Your task to perform on an android device: What's the price of the LG TV? Image 0: 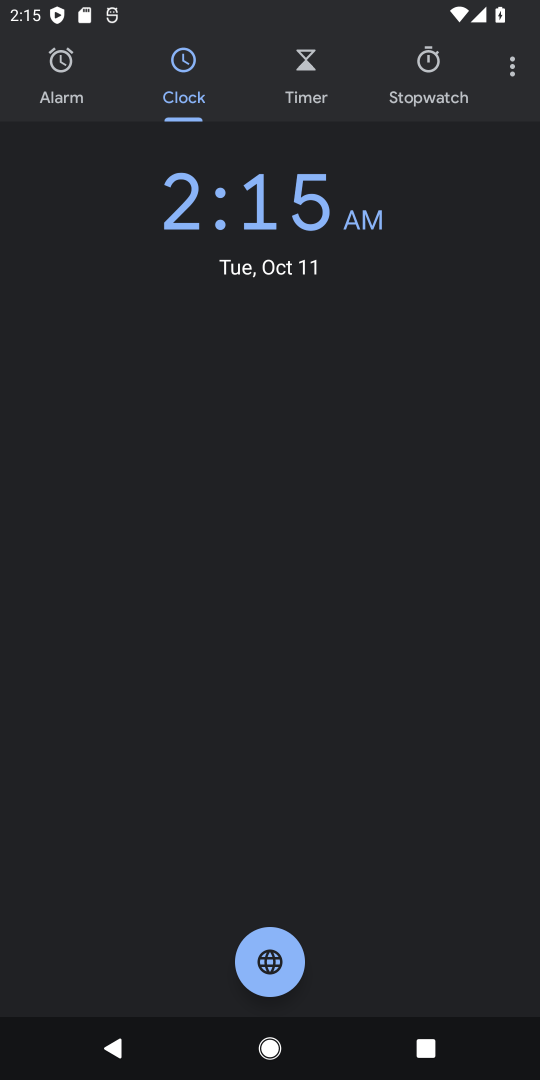
Step 0: press home button
Your task to perform on an android device: What's the price of the LG TV? Image 1: 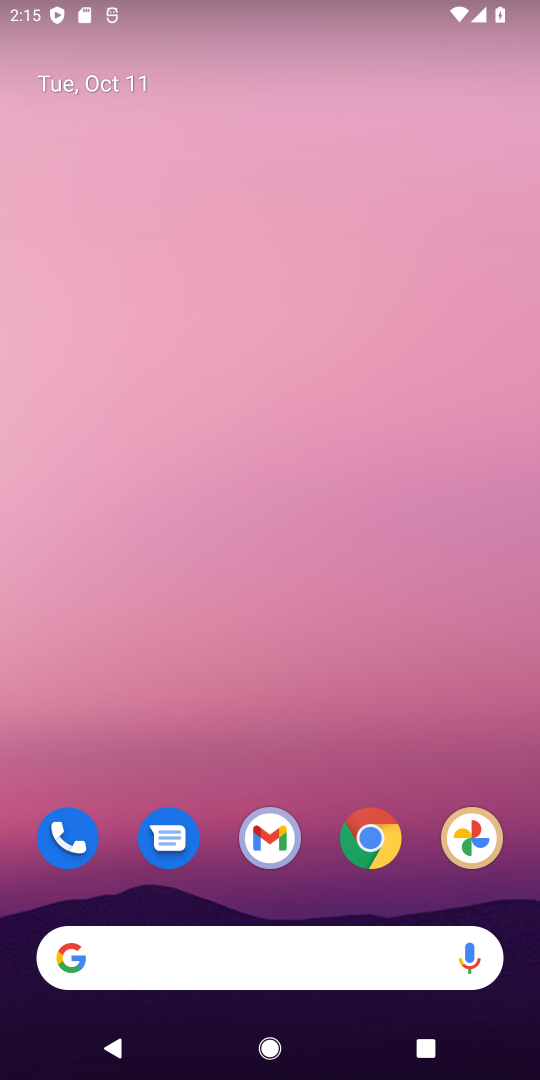
Step 1: click (374, 843)
Your task to perform on an android device: What's the price of the LG TV? Image 2: 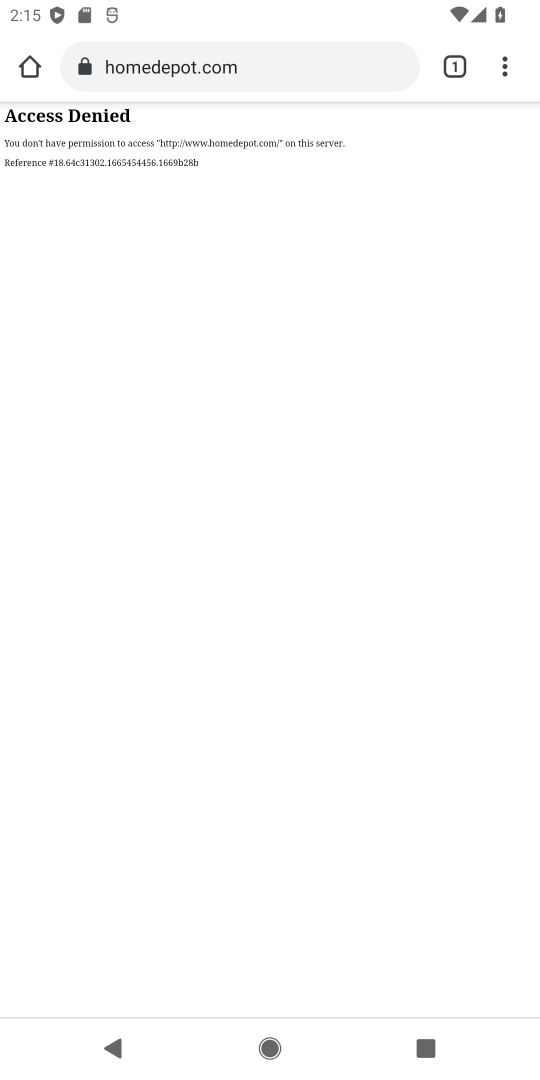
Step 2: click (218, 67)
Your task to perform on an android device: What's the price of the LG TV? Image 3: 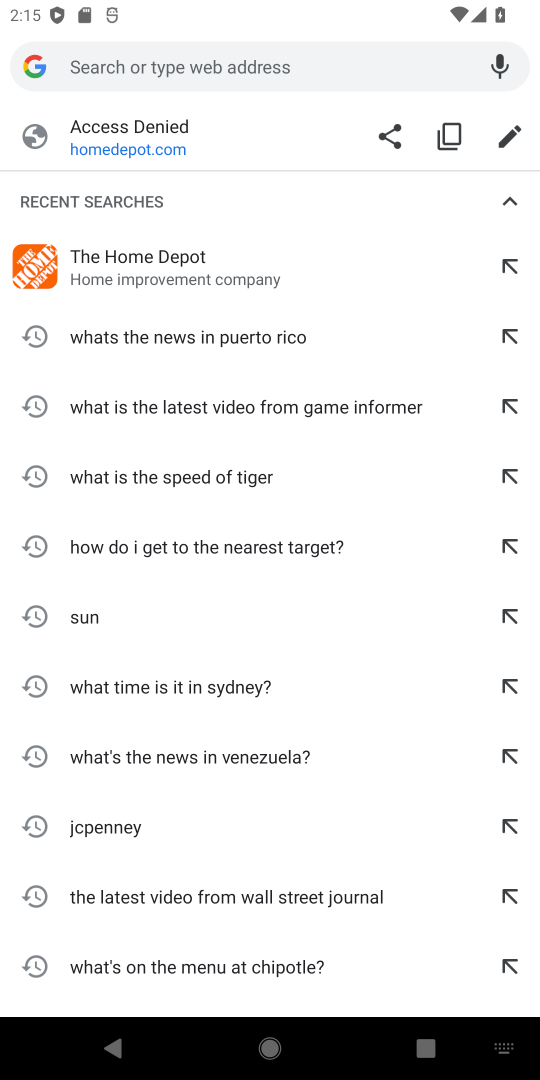
Step 3: type "price of lg tv"
Your task to perform on an android device: What's the price of the LG TV? Image 4: 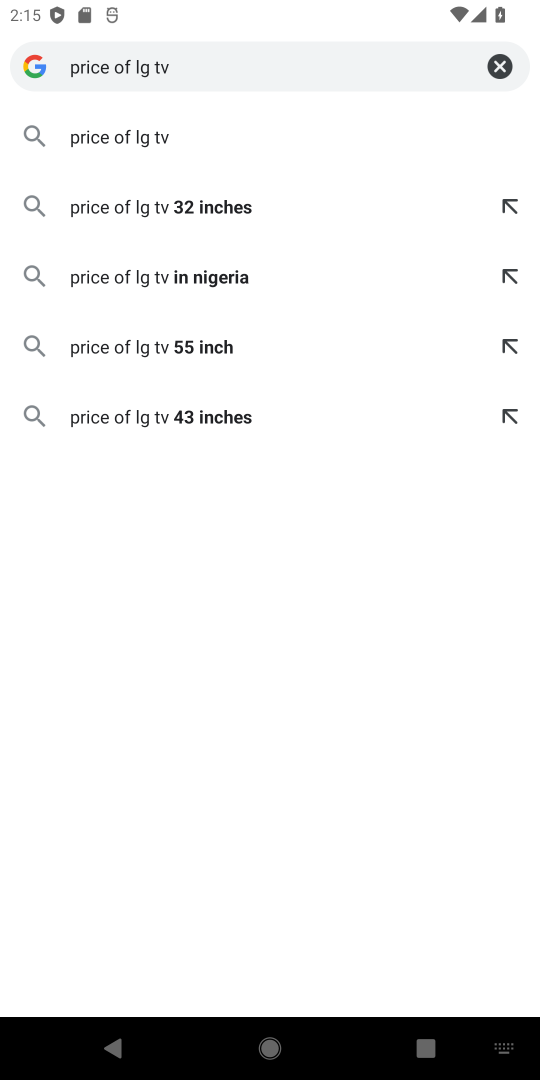
Step 4: click (140, 210)
Your task to perform on an android device: What's the price of the LG TV? Image 5: 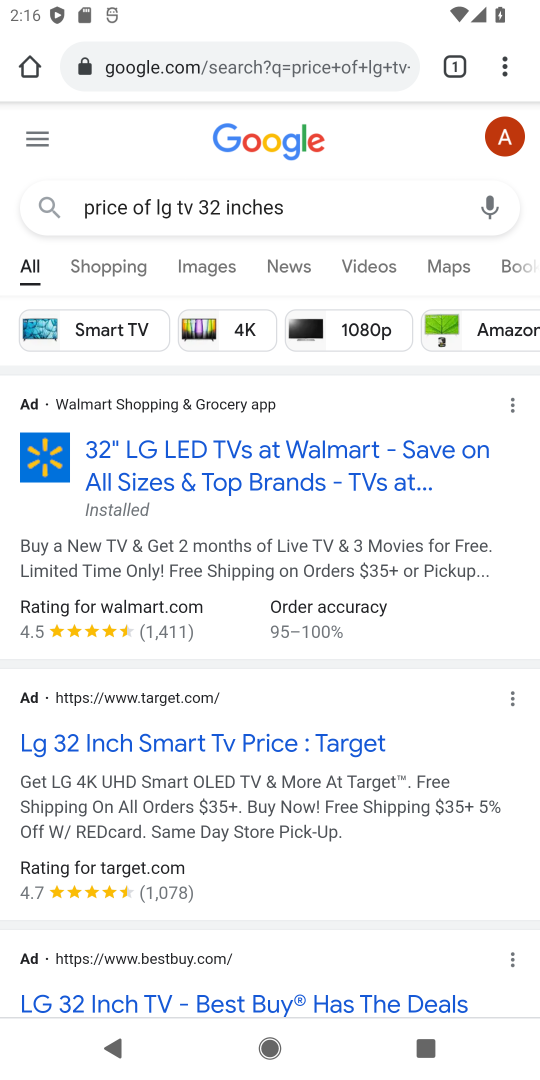
Step 5: drag from (273, 856) to (301, 463)
Your task to perform on an android device: What's the price of the LG TV? Image 6: 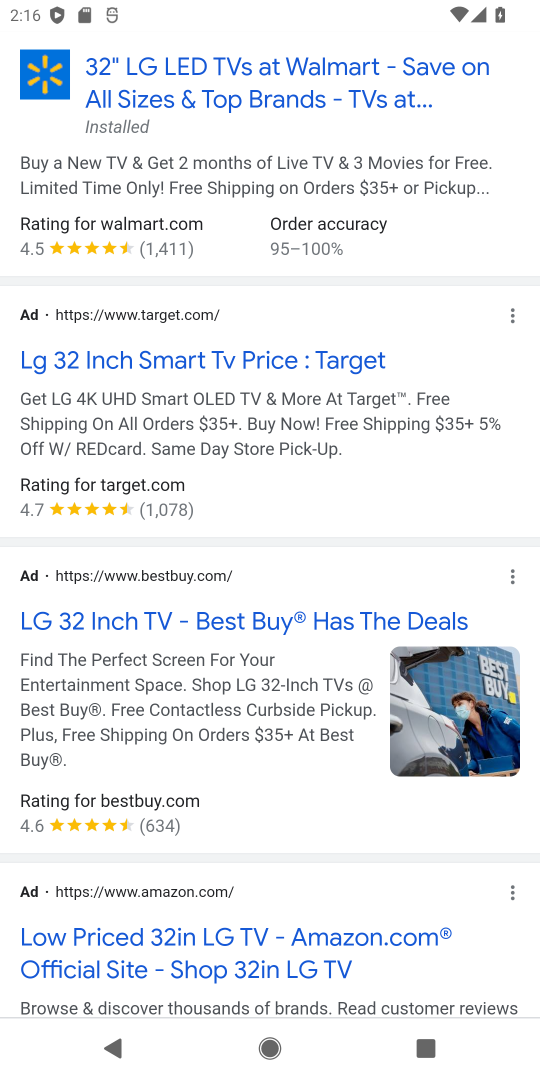
Step 6: drag from (196, 911) to (198, 473)
Your task to perform on an android device: What's the price of the LG TV? Image 7: 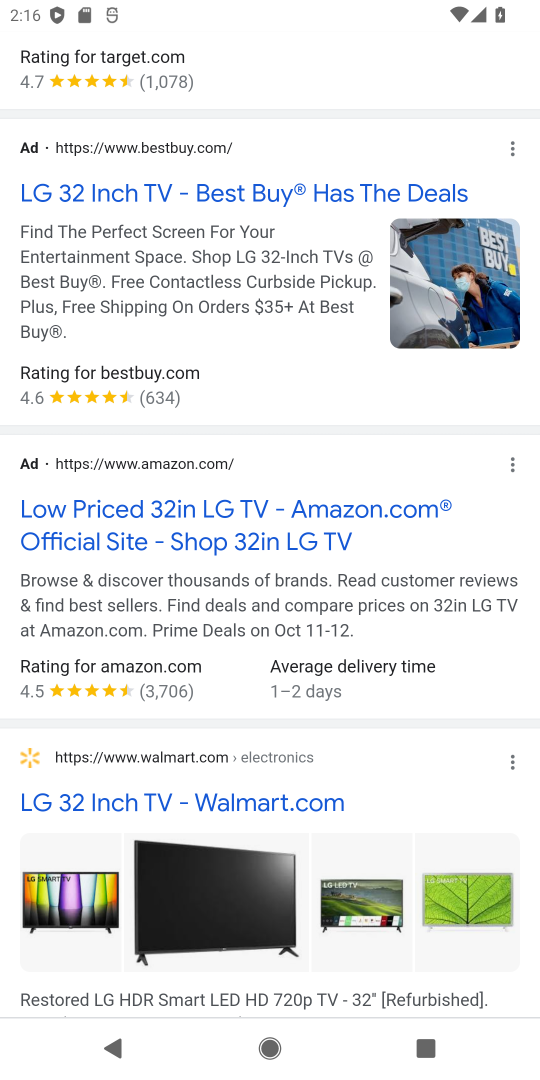
Step 7: drag from (275, 843) to (219, 478)
Your task to perform on an android device: What's the price of the LG TV? Image 8: 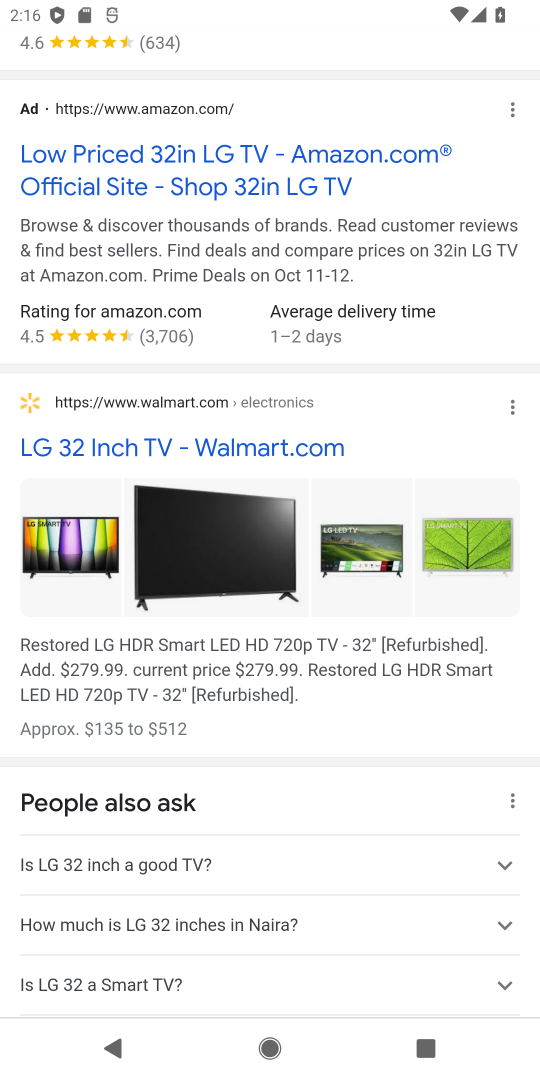
Step 8: drag from (275, 824) to (287, 514)
Your task to perform on an android device: What's the price of the LG TV? Image 9: 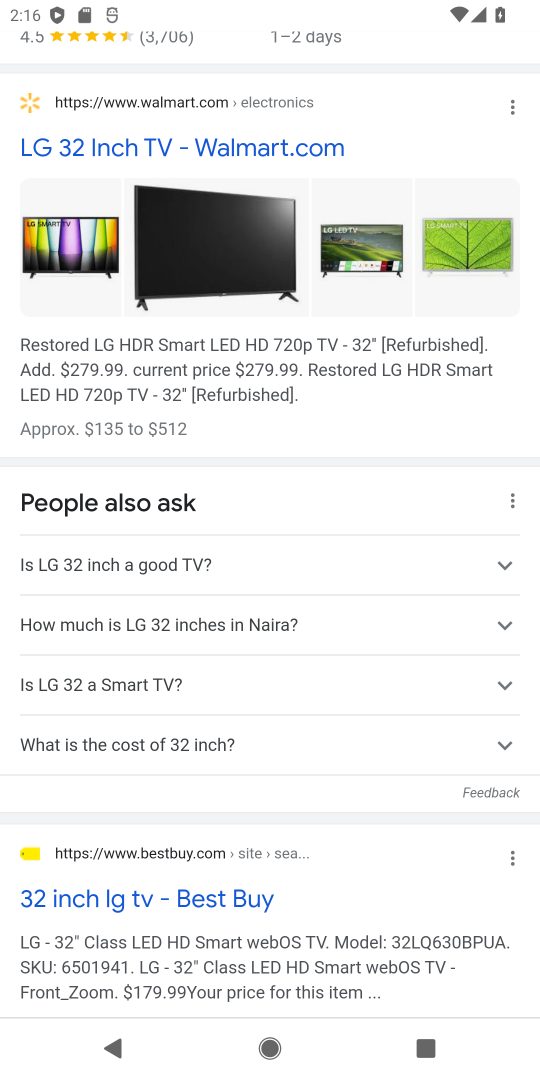
Step 9: drag from (233, 813) to (268, 437)
Your task to perform on an android device: What's the price of the LG TV? Image 10: 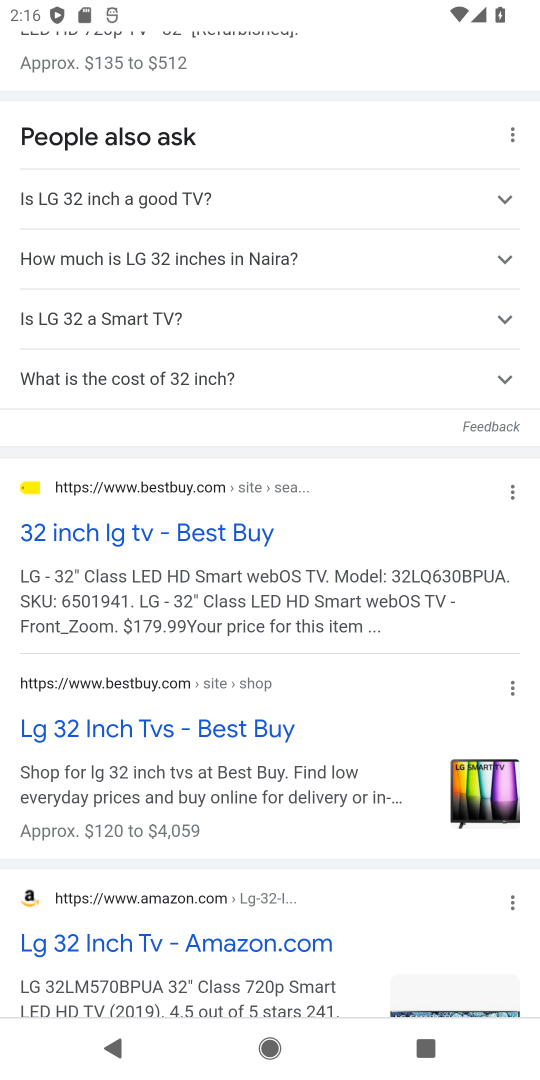
Step 10: drag from (209, 629) to (267, 251)
Your task to perform on an android device: What's the price of the LG TV? Image 11: 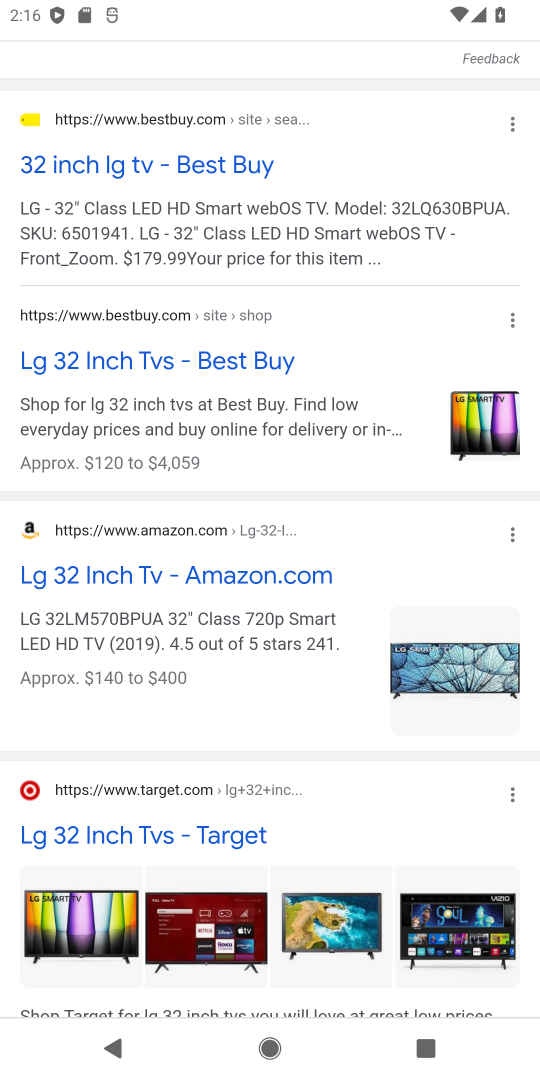
Step 11: drag from (271, 248) to (252, 892)
Your task to perform on an android device: What's the price of the LG TV? Image 12: 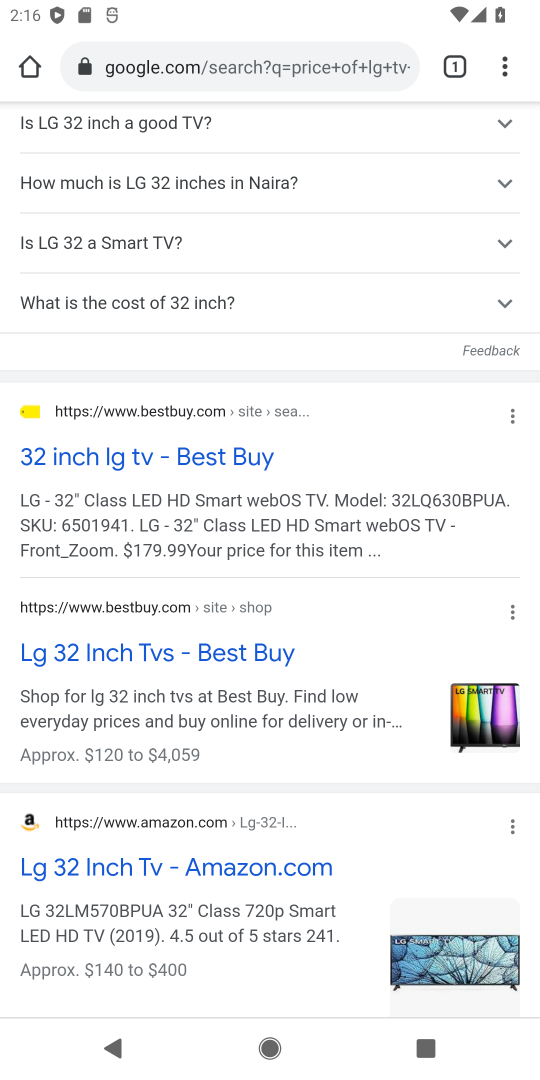
Step 12: drag from (190, 389) to (192, 970)
Your task to perform on an android device: What's the price of the LG TV? Image 13: 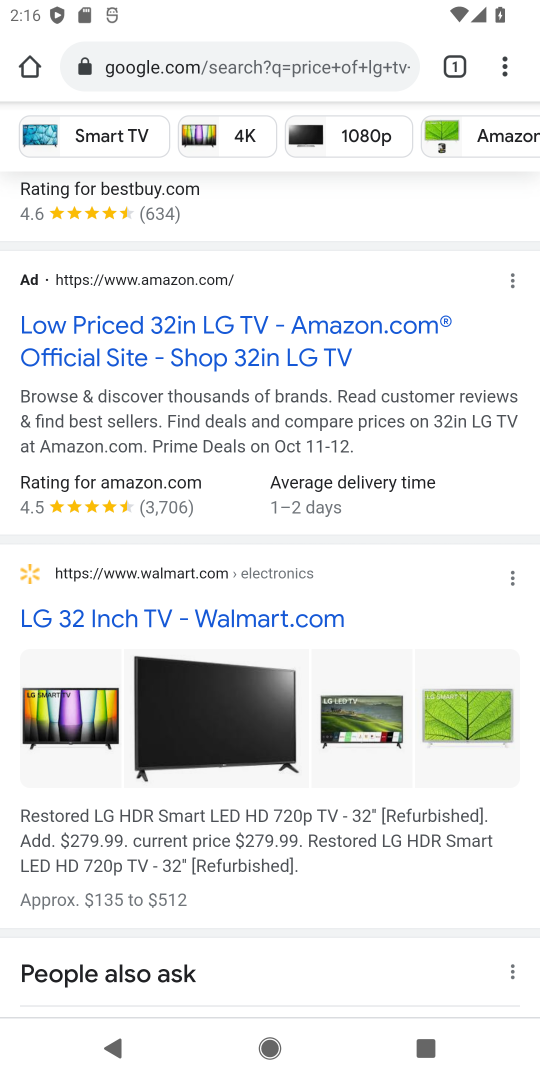
Step 13: drag from (179, 403) to (176, 644)
Your task to perform on an android device: What's the price of the LG TV? Image 14: 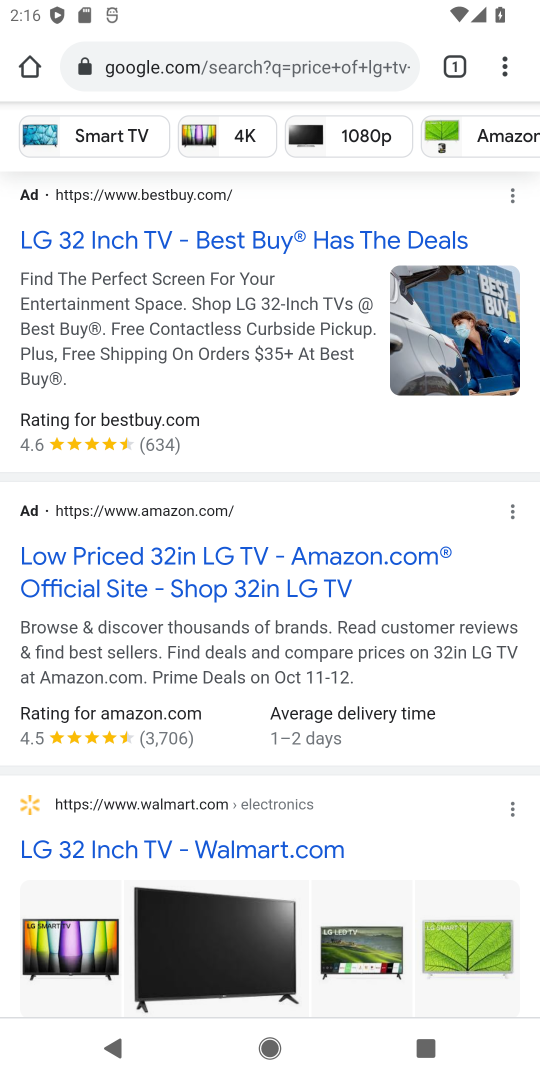
Step 14: click (258, 962)
Your task to perform on an android device: What's the price of the LG TV? Image 15: 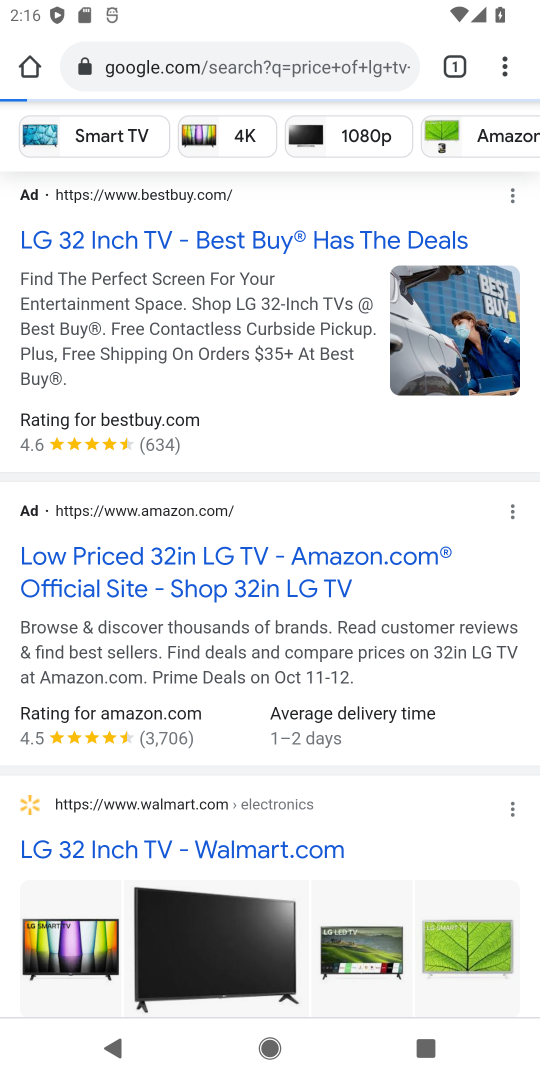
Step 15: click (128, 552)
Your task to perform on an android device: What's the price of the LG TV? Image 16: 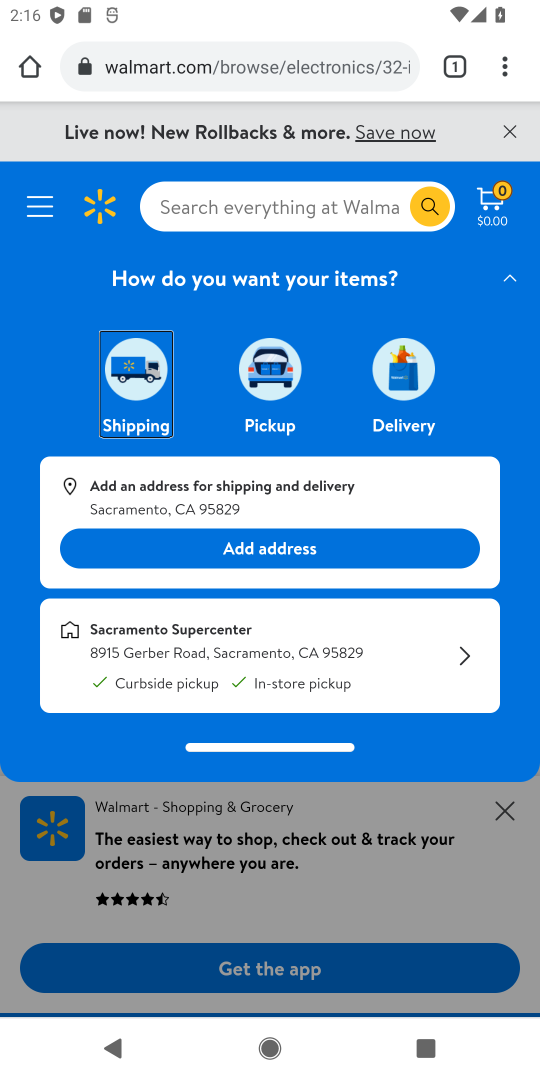
Step 16: click (502, 809)
Your task to perform on an android device: What's the price of the LG TV? Image 17: 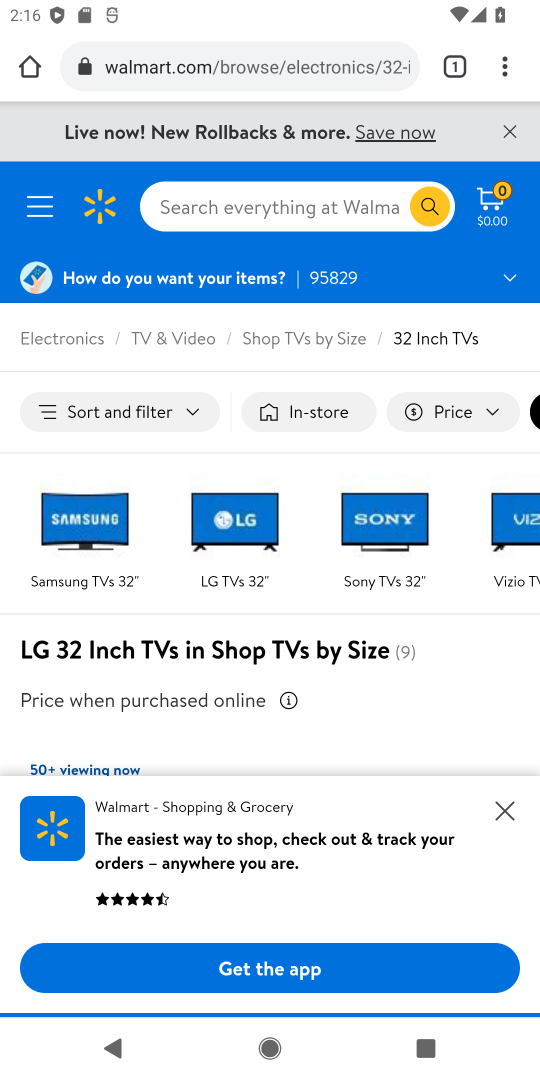
Step 17: click (499, 812)
Your task to perform on an android device: What's the price of the LG TV? Image 18: 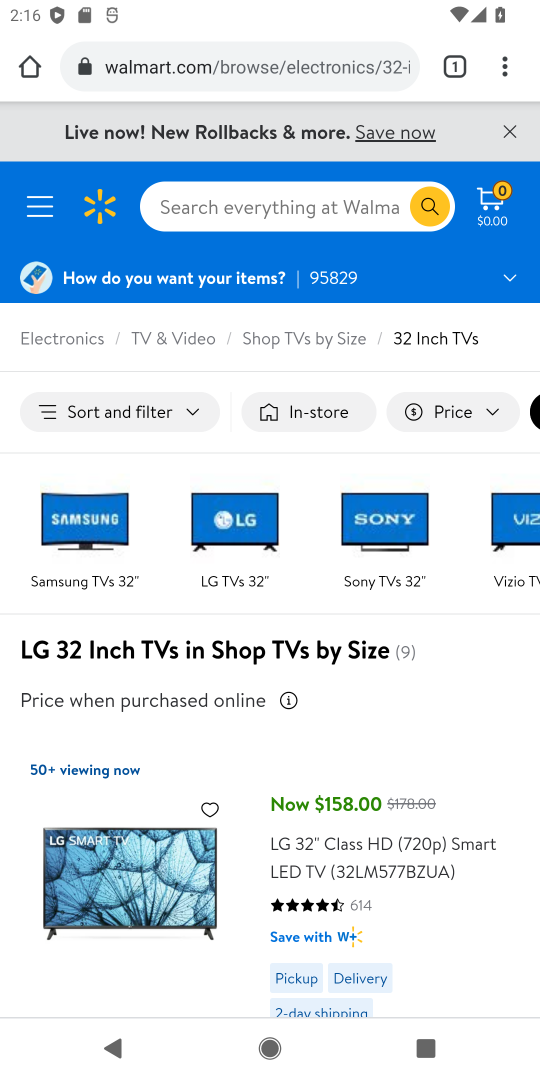
Step 18: drag from (451, 975) to (457, 177)
Your task to perform on an android device: What's the price of the LG TV? Image 19: 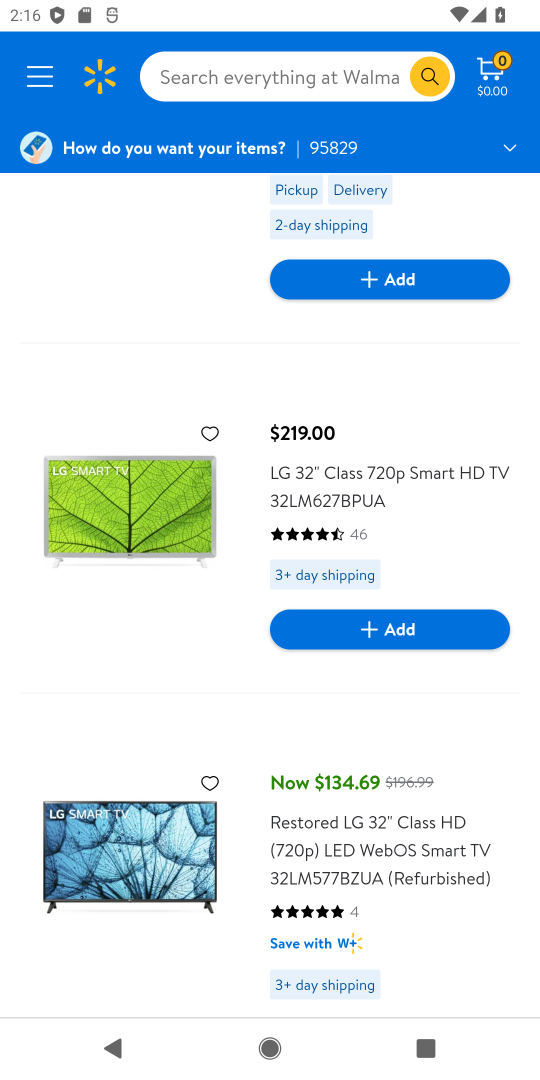
Step 19: drag from (375, 750) to (342, 297)
Your task to perform on an android device: What's the price of the LG TV? Image 20: 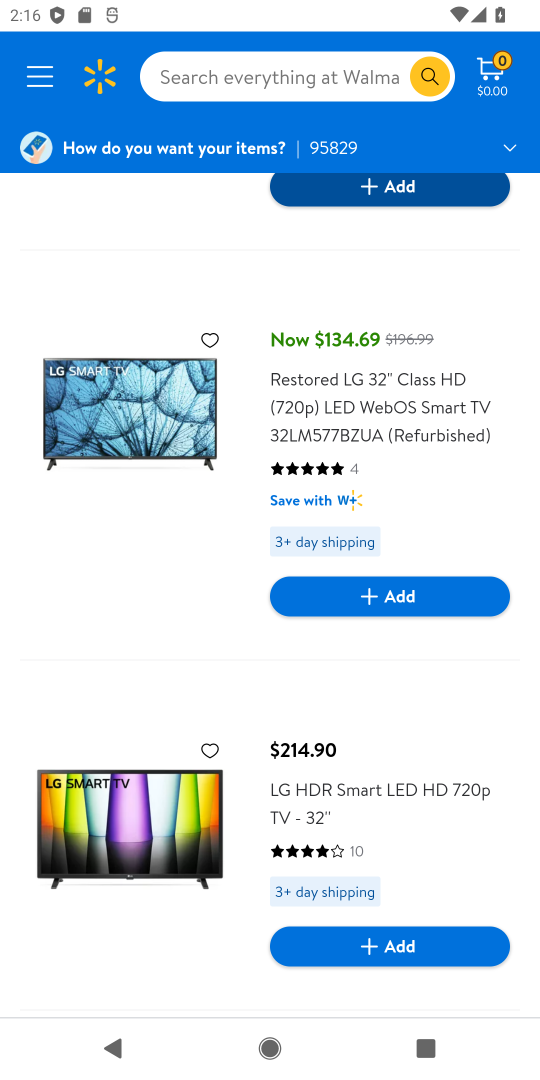
Step 20: drag from (358, 894) to (328, 295)
Your task to perform on an android device: What's the price of the LG TV? Image 21: 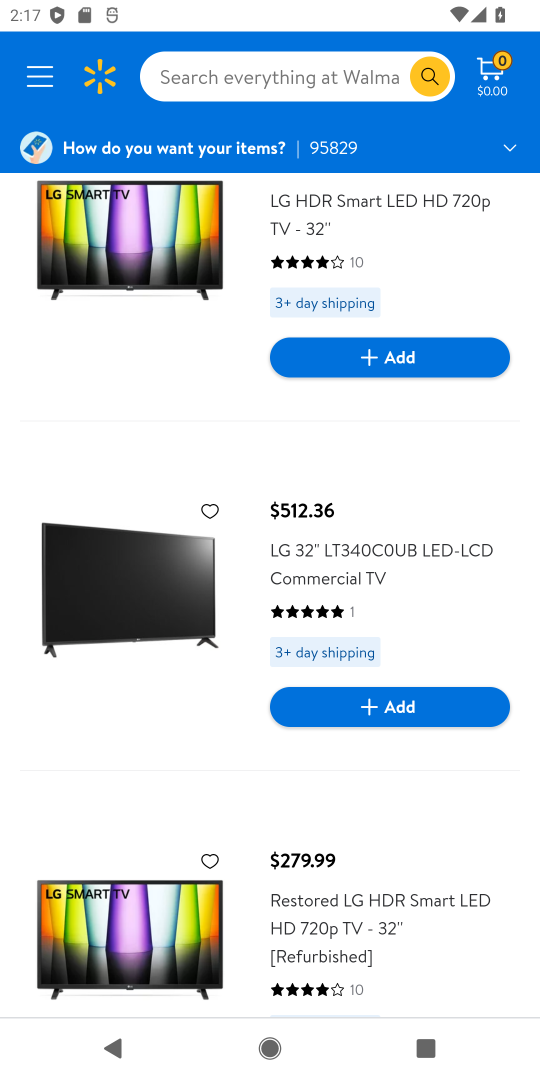
Step 21: drag from (320, 910) to (346, 419)
Your task to perform on an android device: What's the price of the LG TV? Image 22: 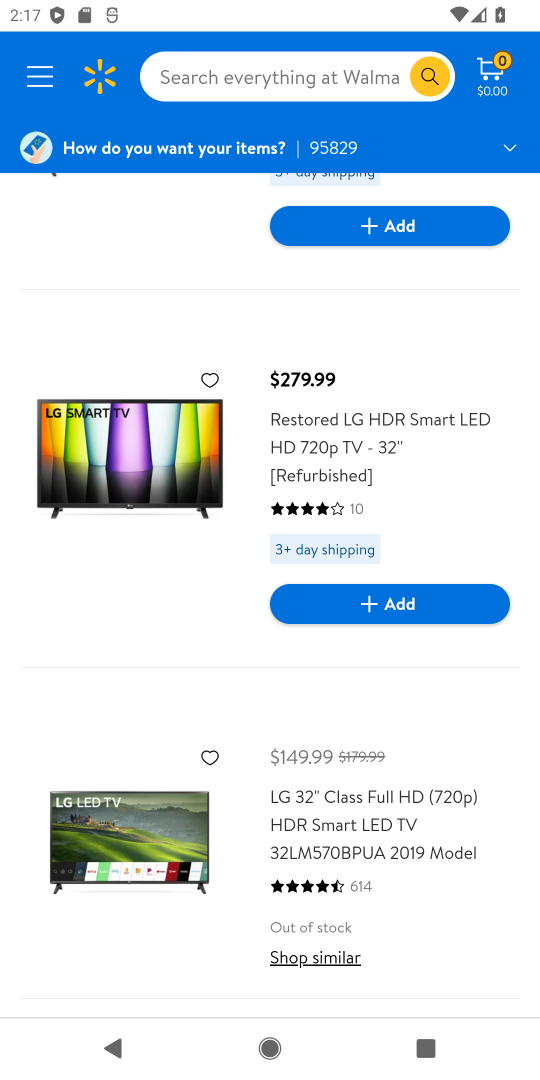
Step 22: drag from (368, 965) to (365, 388)
Your task to perform on an android device: What's the price of the LG TV? Image 23: 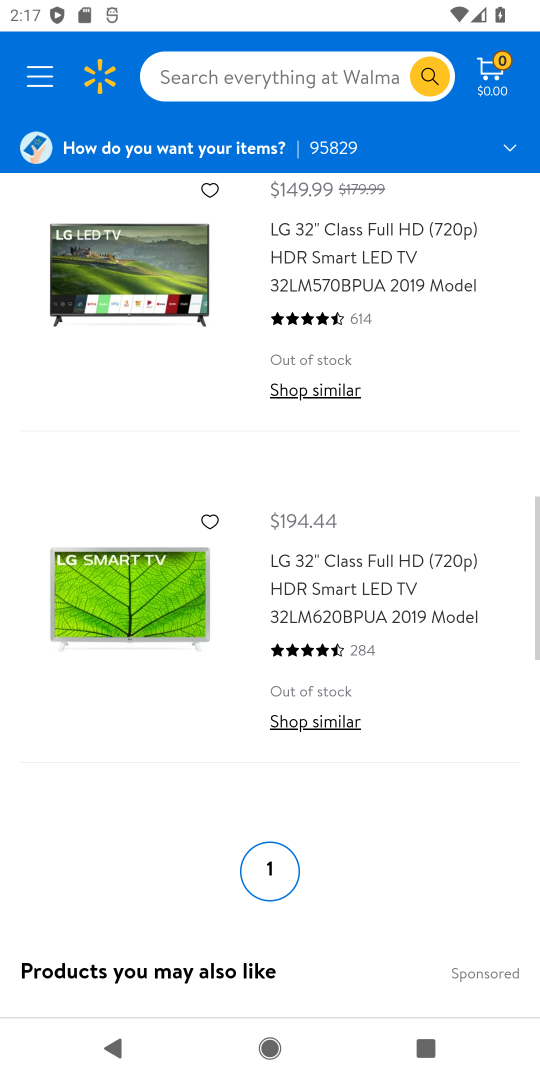
Step 23: drag from (334, 956) to (353, 427)
Your task to perform on an android device: What's the price of the LG TV? Image 24: 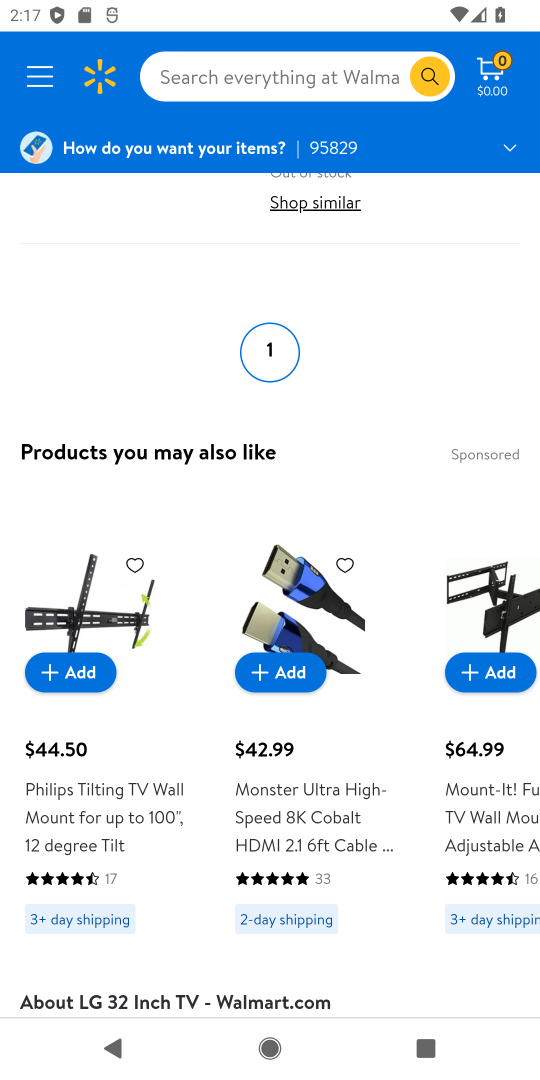
Step 24: drag from (339, 618) to (364, 228)
Your task to perform on an android device: What's the price of the LG TV? Image 25: 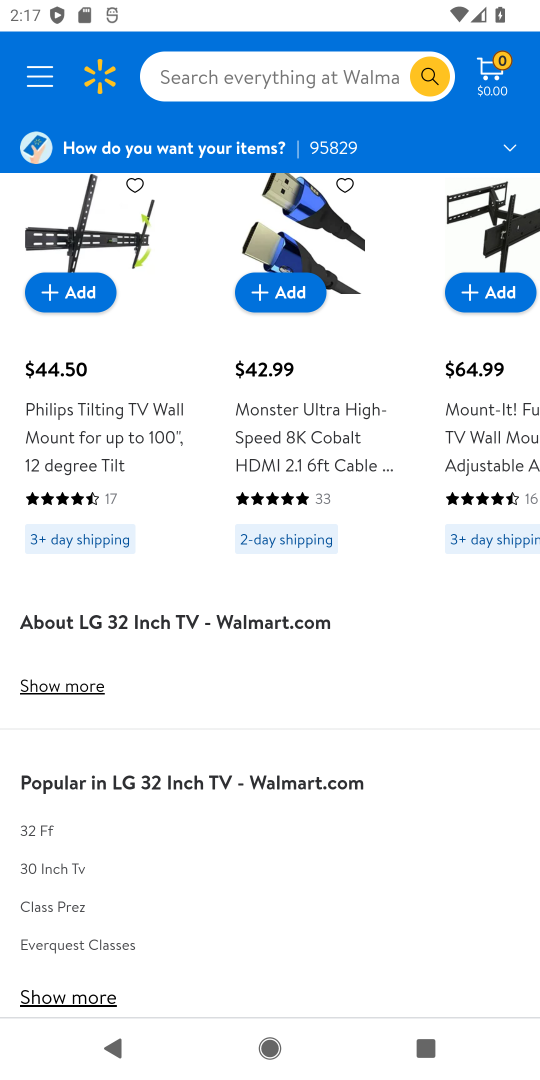
Step 25: drag from (310, 962) to (354, 328)
Your task to perform on an android device: What's the price of the LG TV? Image 26: 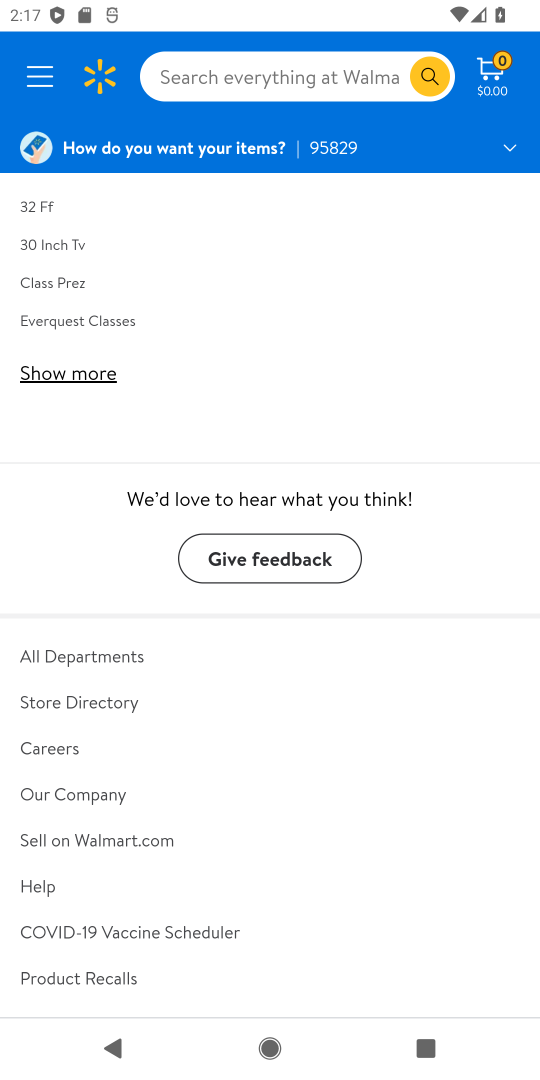
Step 26: drag from (365, 841) to (375, 320)
Your task to perform on an android device: What's the price of the LG TV? Image 27: 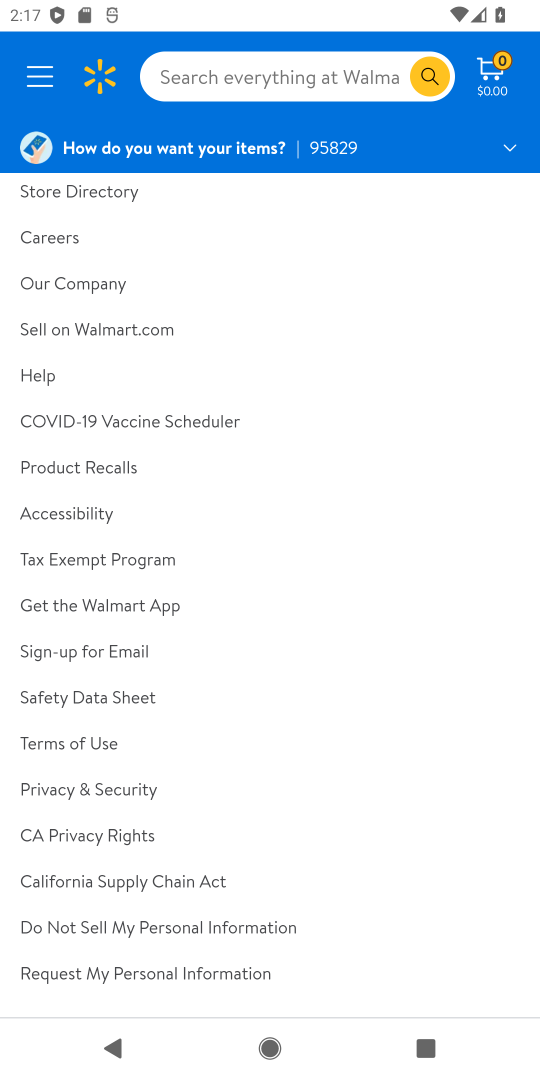
Step 27: drag from (425, 938) to (428, 487)
Your task to perform on an android device: What's the price of the LG TV? Image 28: 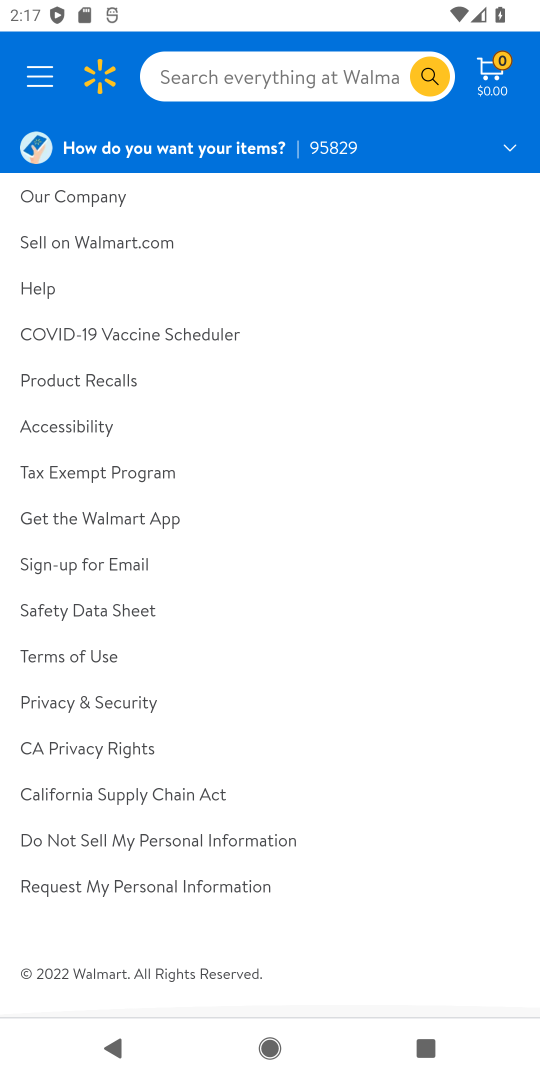
Step 28: drag from (375, 461) to (393, 914)
Your task to perform on an android device: What's the price of the LG TV? Image 29: 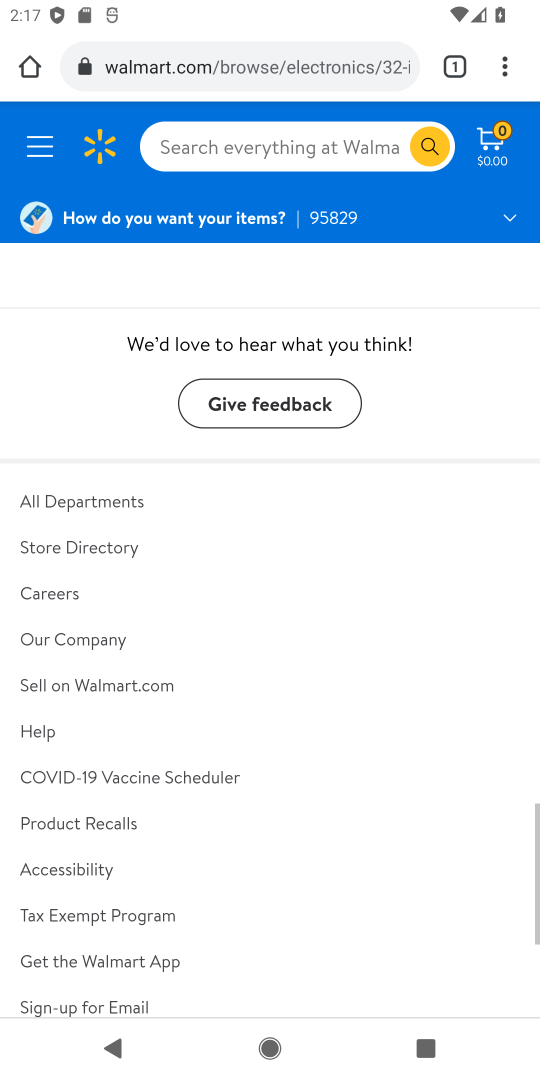
Step 29: drag from (388, 339) to (376, 970)
Your task to perform on an android device: What's the price of the LG TV? Image 30: 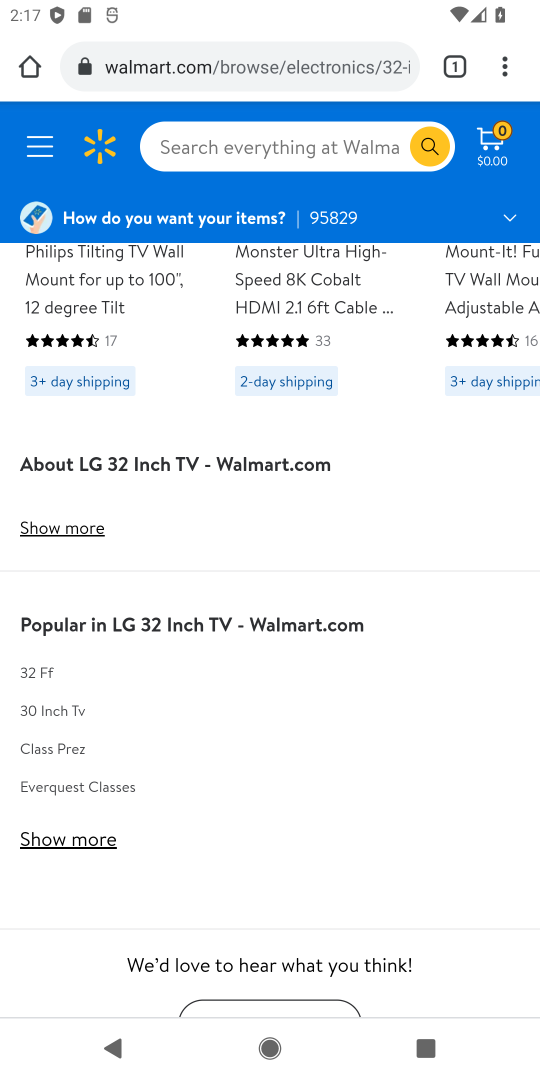
Step 30: drag from (373, 396) to (374, 921)
Your task to perform on an android device: What's the price of the LG TV? Image 31: 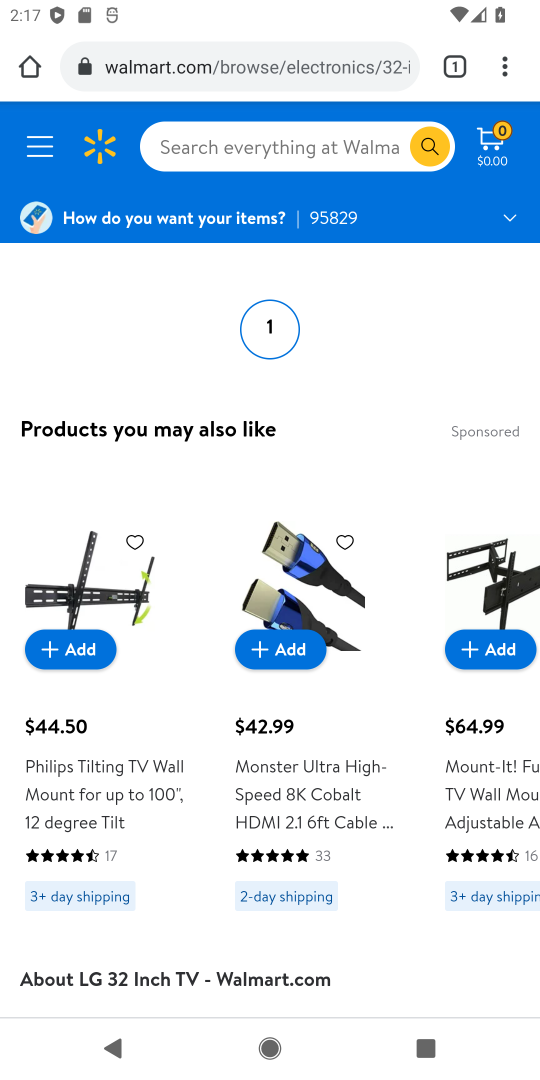
Step 31: drag from (388, 351) to (397, 977)
Your task to perform on an android device: What's the price of the LG TV? Image 32: 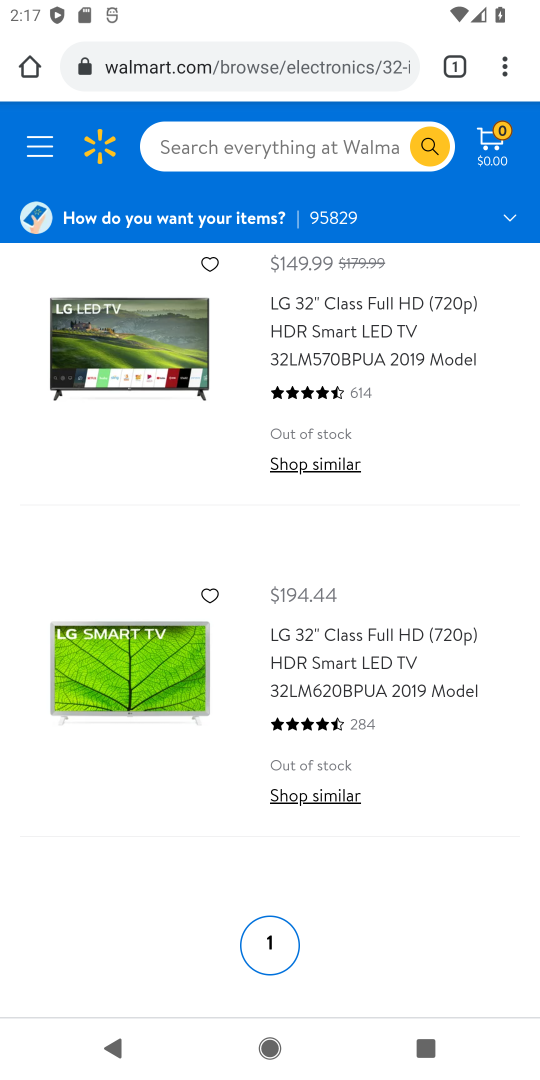
Step 32: drag from (435, 492) to (502, 939)
Your task to perform on an android device: What's the price of the LG TV? Image 33: 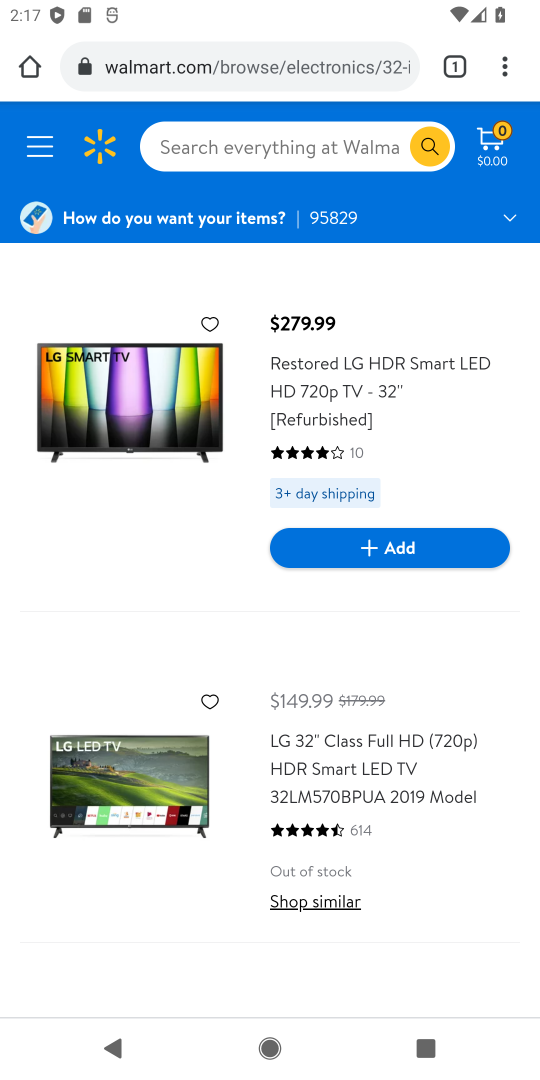
Step 33: click (98, 409)
Your task to perform on an android device: What's the price of the LG TV? Image 34: 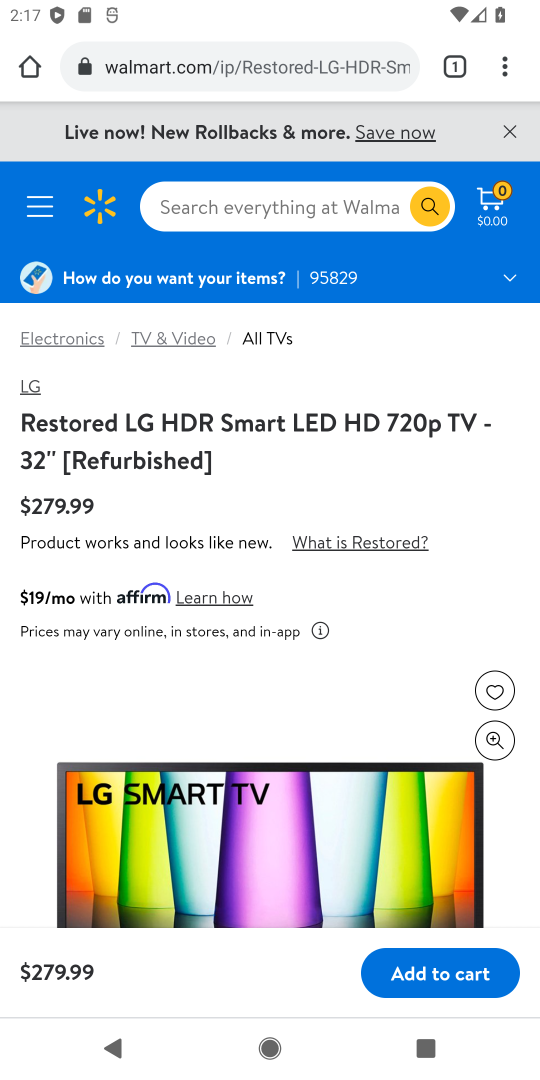
Step 34: drag from (435, 455) to (457, 709)
Your task to perform on an android device: What's the price of the LG TV? Image 35: 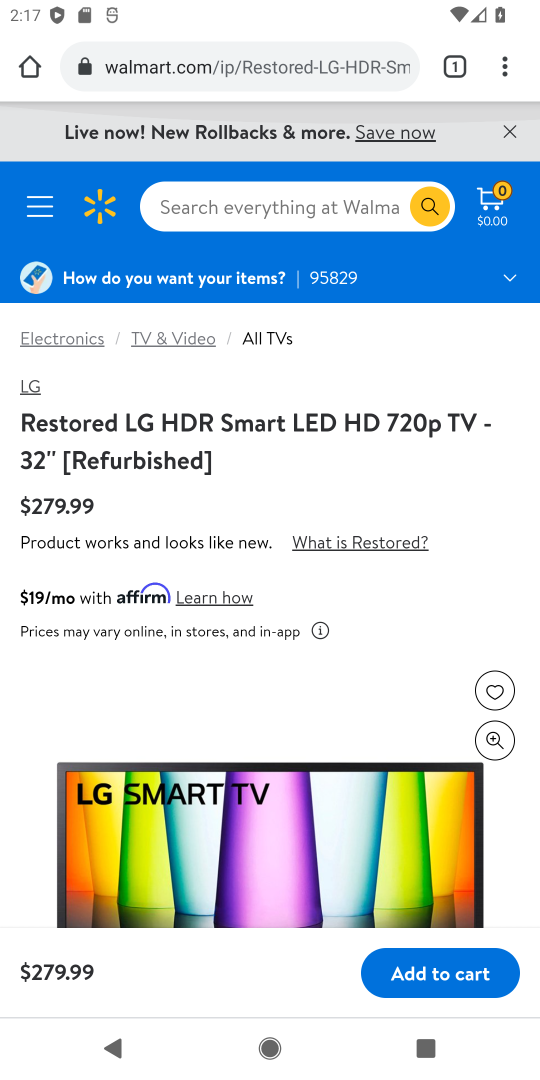
Step 35: drag from (215, 618) to (215, 401)
Your task to perform on an android device: What's the price of the LG TV? Image 36: 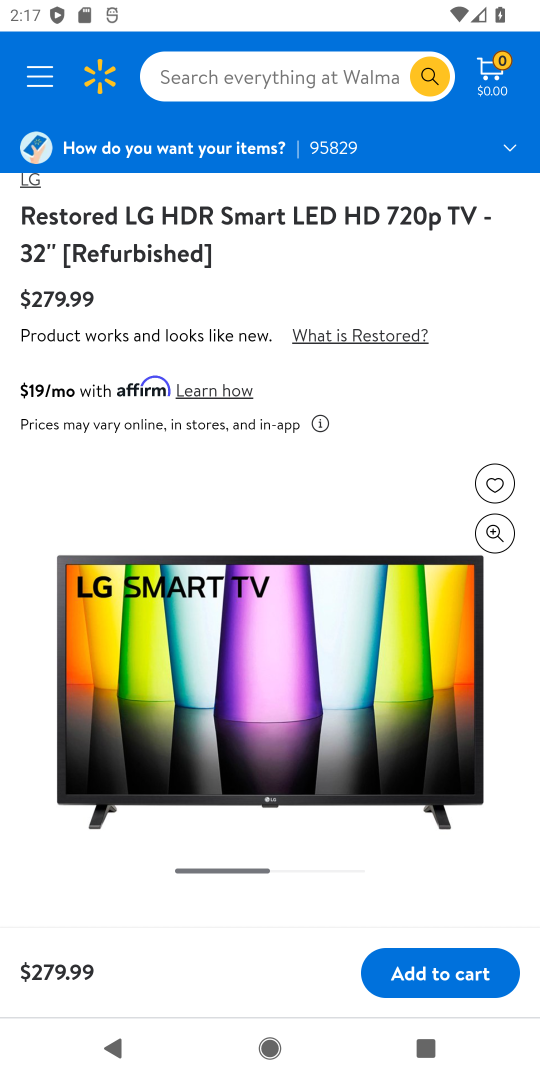
Step 36: drag from (193, 892) to (209, 452)
Your task to perform on an android device: What's the price of the LG TV? Image 37: 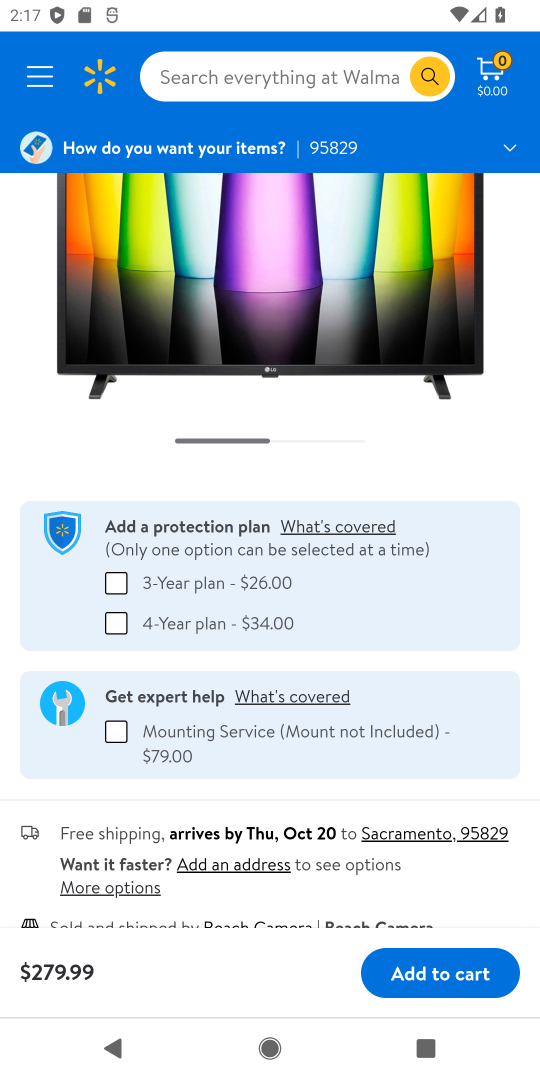
Step 37: drag from (365, 692) to (392, 231)
Your task to perform on an android device: What's the price of the LG TV? Image 38: 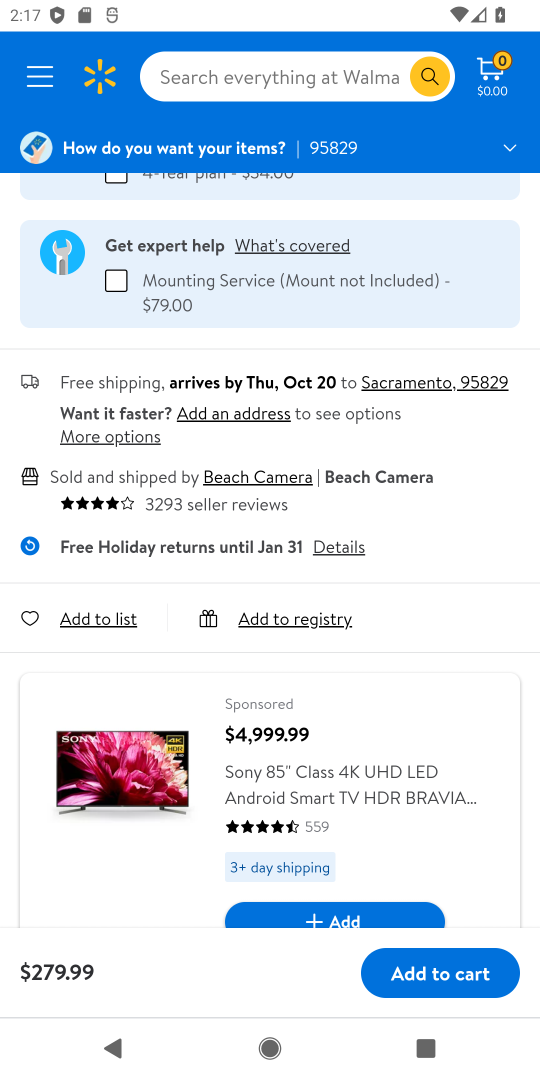
Step 38: drag from (383, 436) to (370, 203)
Your task to perform on an android device: What's the price of the LG TV? Image 39: 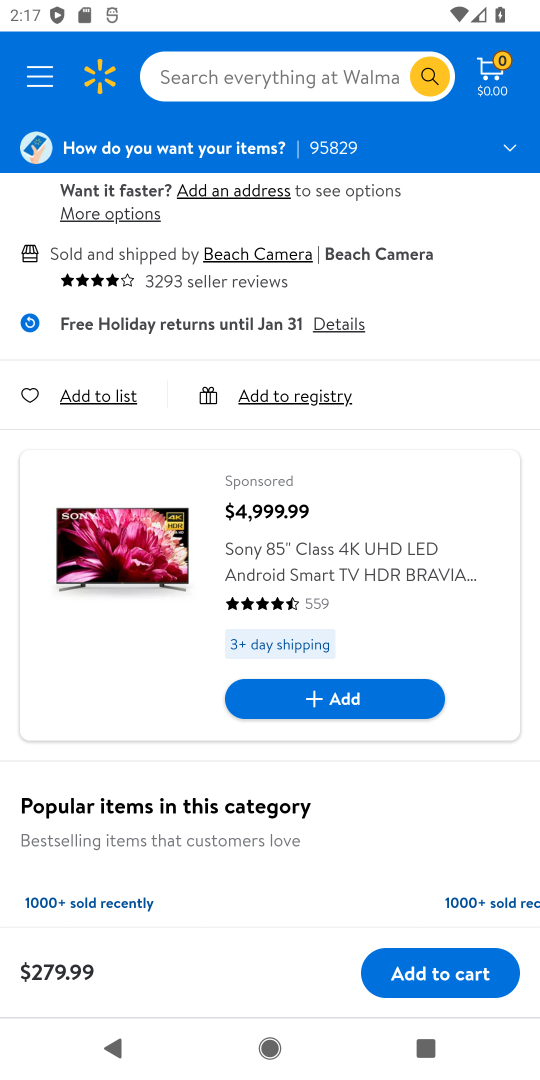
Step 39: drag from (348, 613) to (349, 286)
Your task to perform on an android device: What's the price of the LG TV? Image 40: 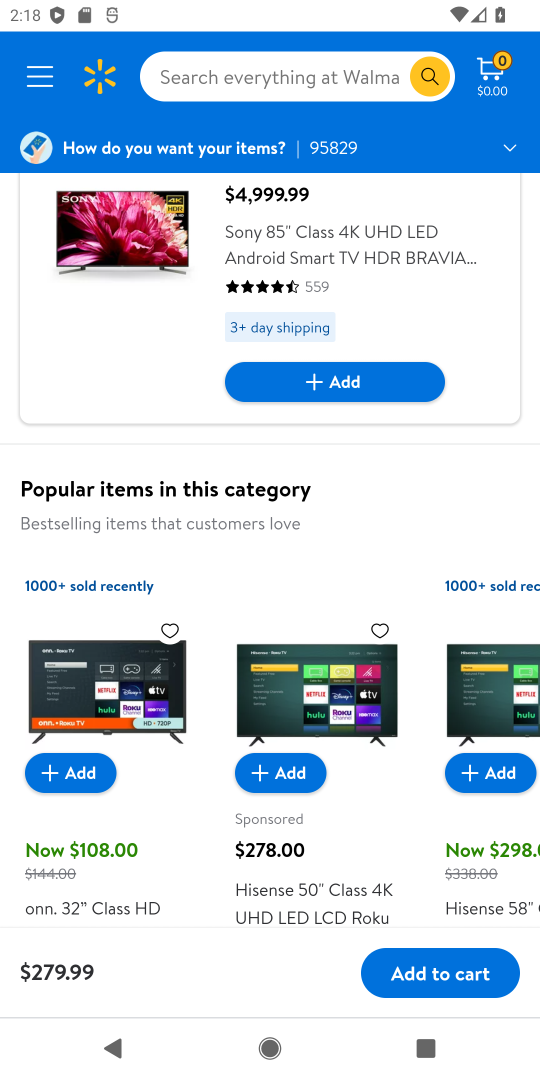
Step 40: click (337, 679)
Your task to perform on an android device: What's the price of the LG TV? Image 41: 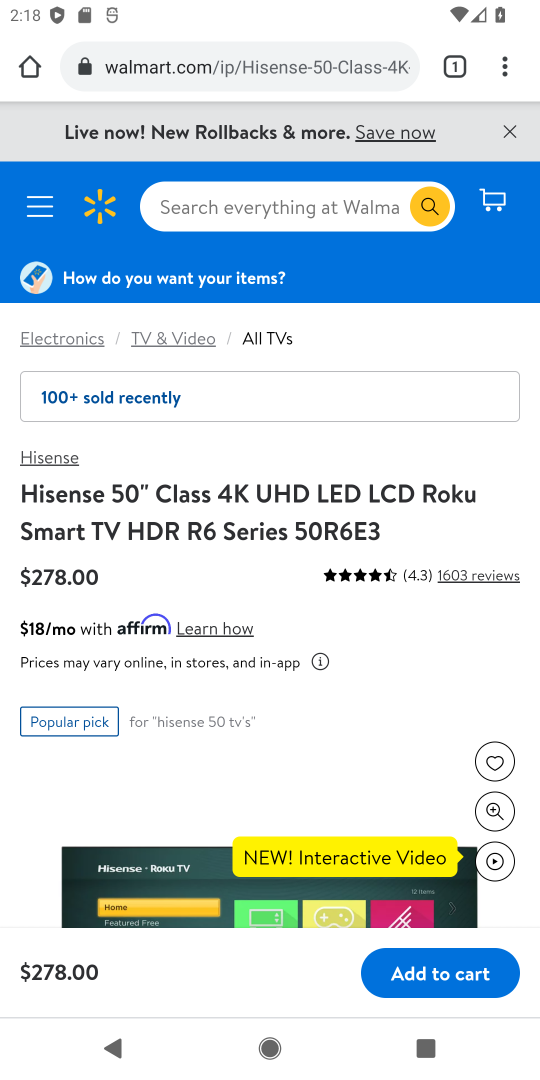
Step 41: task complete